Your task to perform on an android device: turn off data saver in the chrome app Image 0: 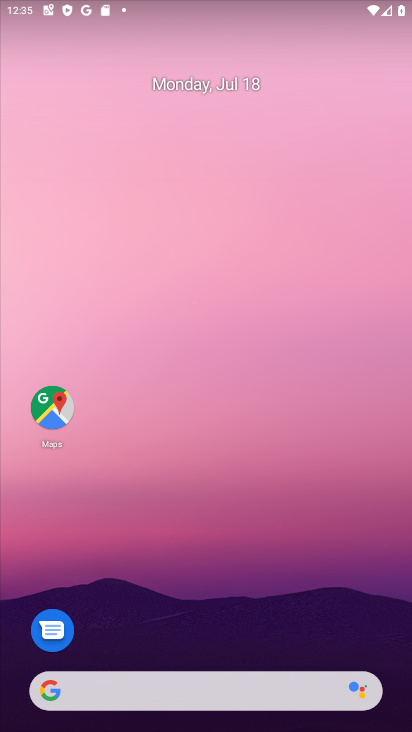
Step 0: drag from (274, 681) to (314, 81)
Your task to perform on an android device: turn off data saver in the chrome app Image 1: 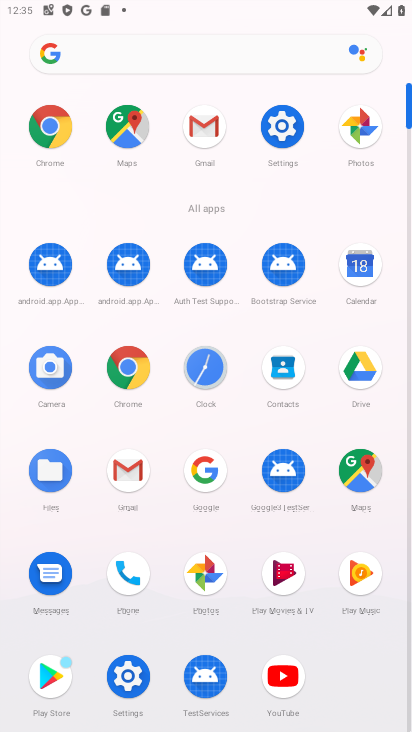
Step 1: click (121, 363)
Your task to perform on an android device: turn off data saver in the chrome app Image 2: 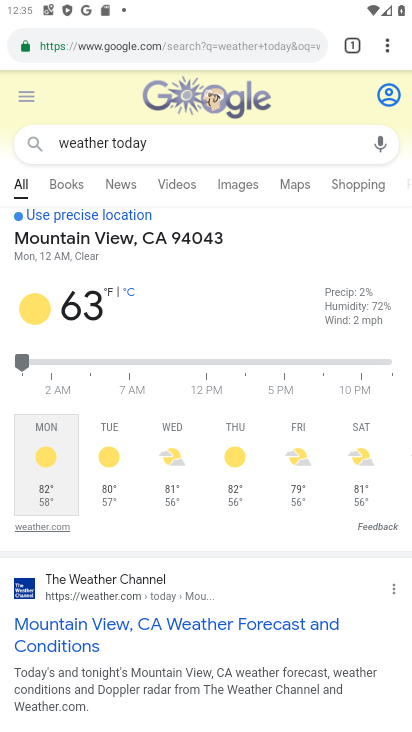
Step 2: drag from (390, 41) to (240, 500)
Your task to perform on an android device: turn off data saver in the chrome app Image 3: 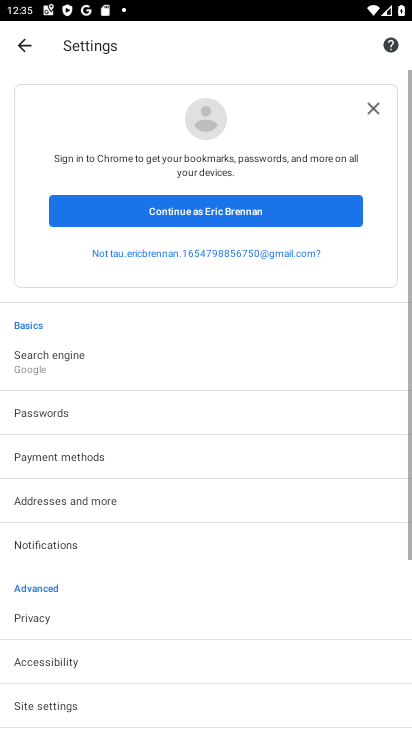
Step 3: drag from (231, 607) to (223, 297)
Your task to perform on an android device: turn off data saver in the chrome app Image 4: 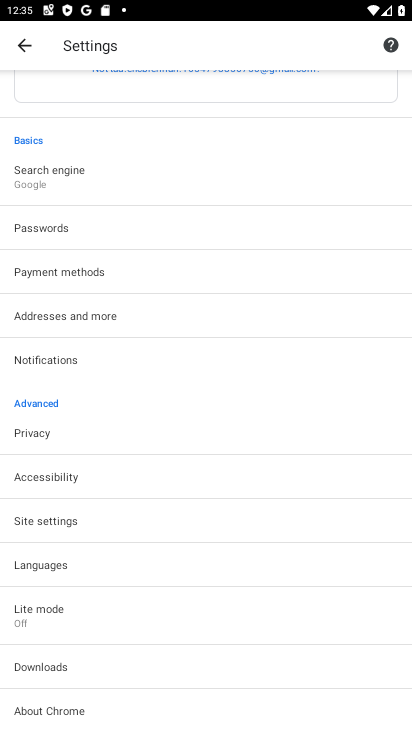
Step 4: click (70, 628)
Your task to perform on an android device: turn off data saver in the chrome app Image 5: 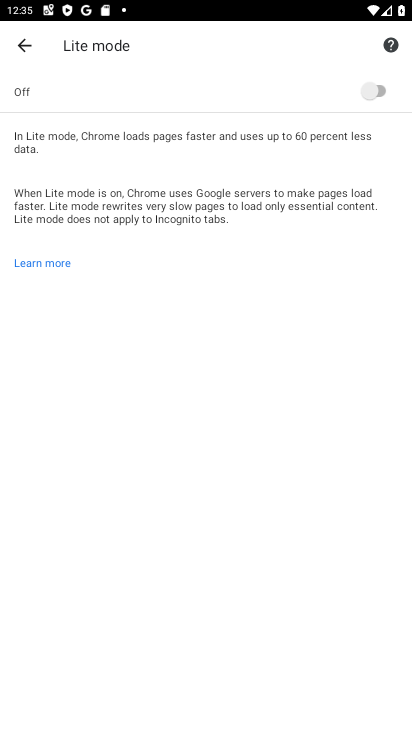
Step 5: task complete